Your task to perform on an android device: change the clock style Image 0: 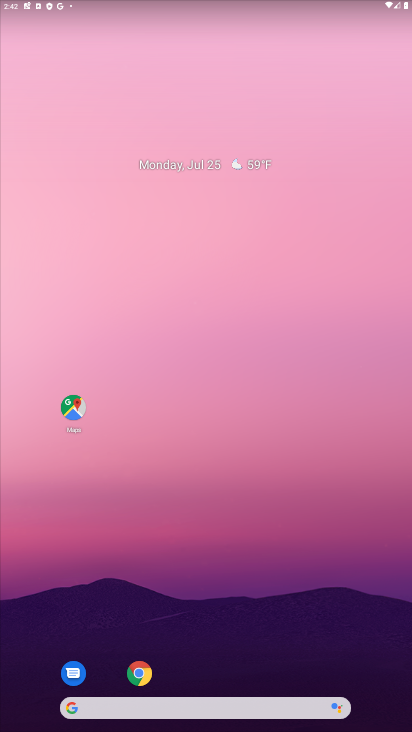
Step 0: drag from (200, 665) to (145, 96)
Your task to perform on an android device: change the clock style Image 1: 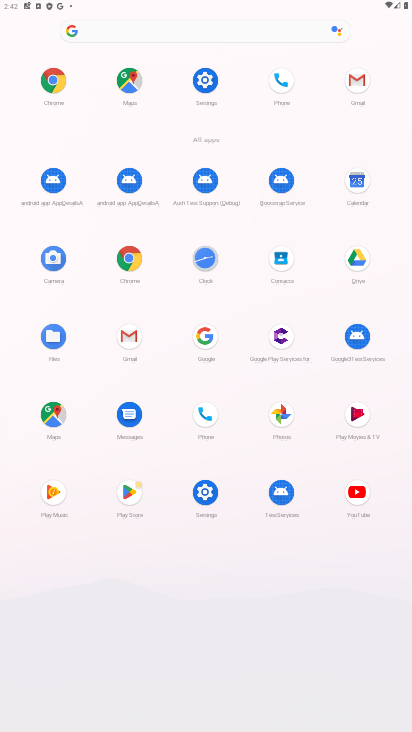
Step 1: click (194, 262)
Your task to perform on an android device: change the clock style Image 2: 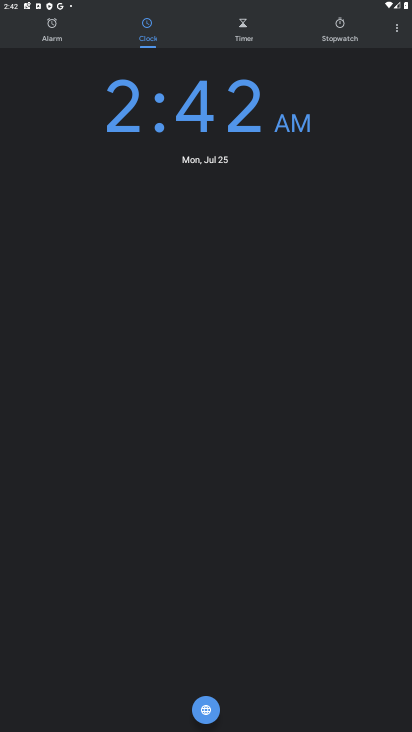
Step 2: click (401, 30)
Your task to perform on an android device: change the clock style Image 3: 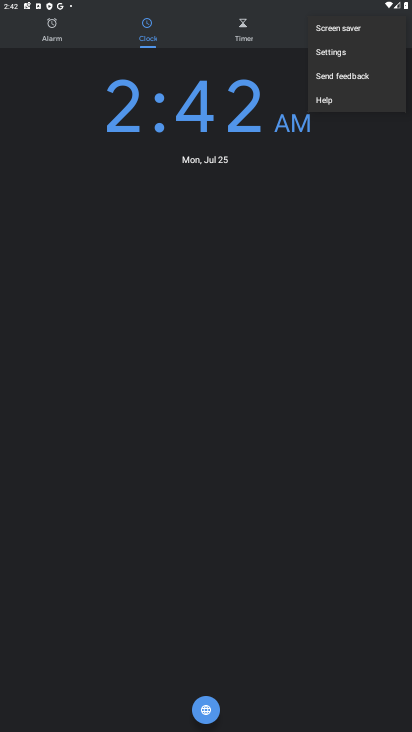
Step 3: click (336, 57)
Your task to perform on an android device: change the clock style Image 4: 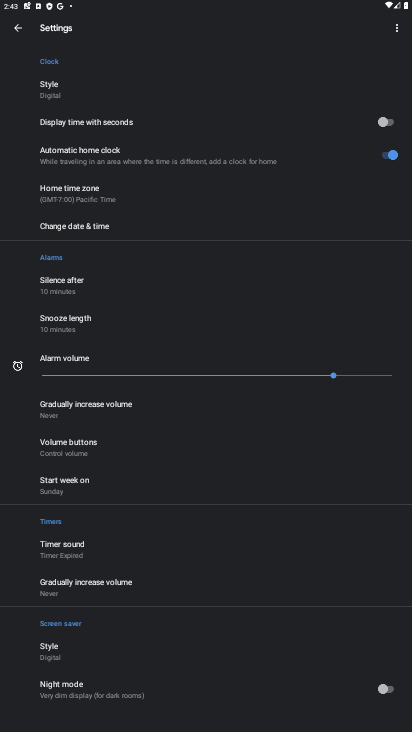
Step 4: click (89, 87)
Your task to perform on an android device: change the clock style Image 5: 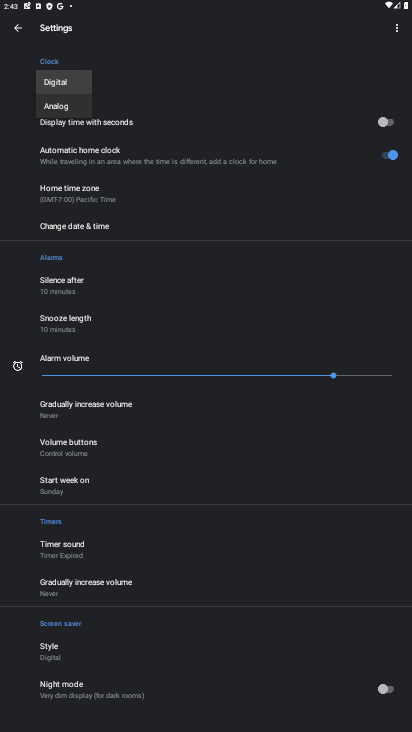
Step 5: click (67, 103)
Your task to perform on an android device: change the clock style Image 6: 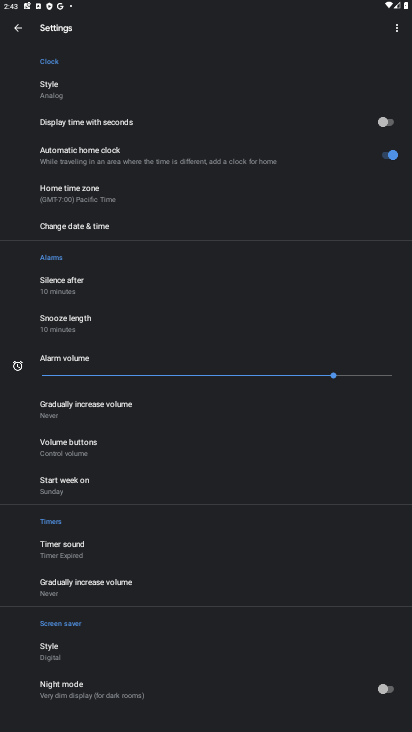
Step 6: task complete